Your task to perform on an android device: Go to ESPN.com Image 0: 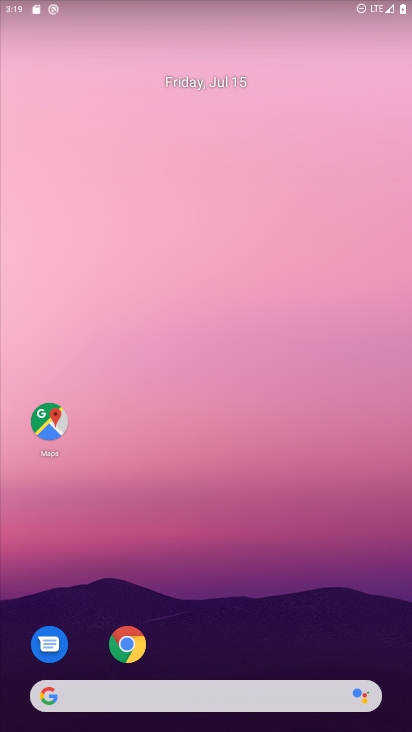
Step 0: click (136, 644)
Your task to perform on an android device: Go to ESPN.com Image 1: 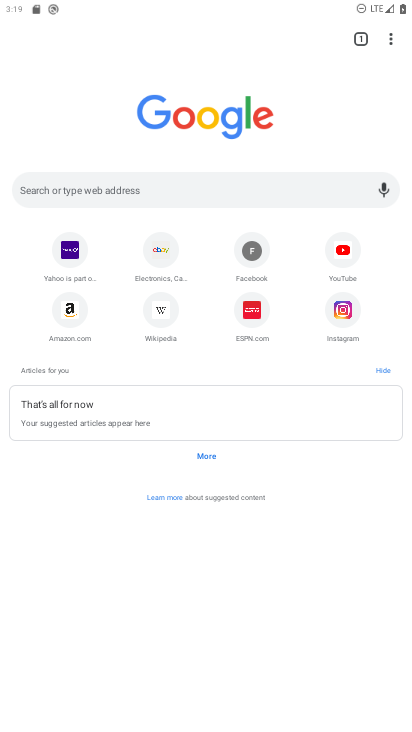
Step 1: click (259, 301)
Your task to perform on an android device: Go to ESPN.com Image 2: 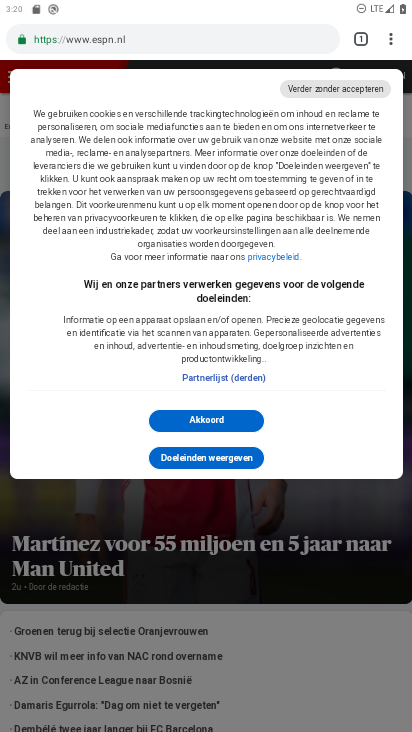
Step 2: task complete